Your task to perform on an android device: turn off data saver in the chrome app Image 0: 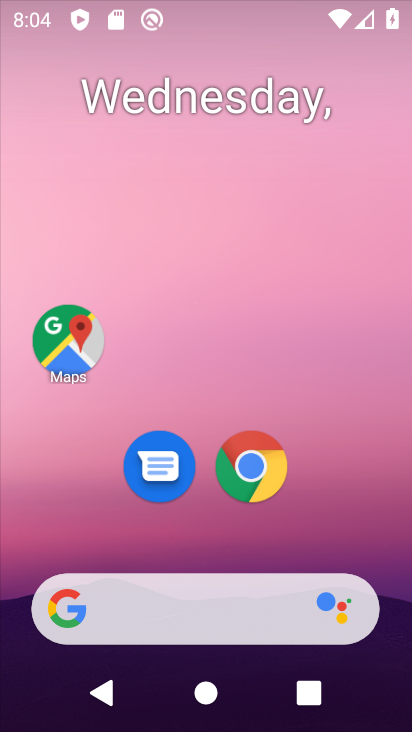
Step 0: drag from (179, 524) to (261, 3)
Your task to perform on an android device: turn off data saver in the chrome app Image 1: 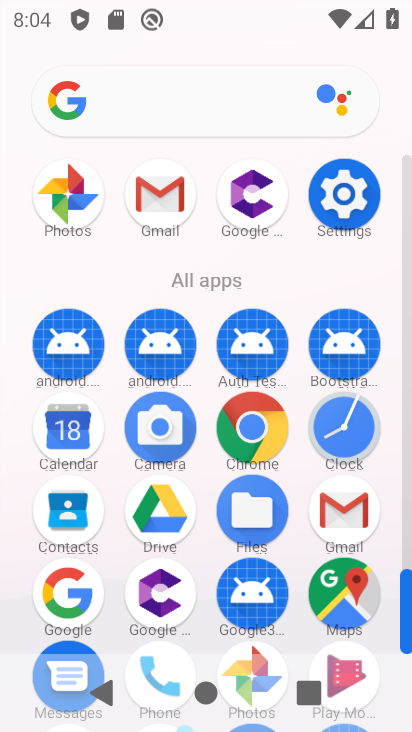
Step 1: click (266, 411)
Your task to perform on an android device: turn off data saver in the chrome app Image 2: 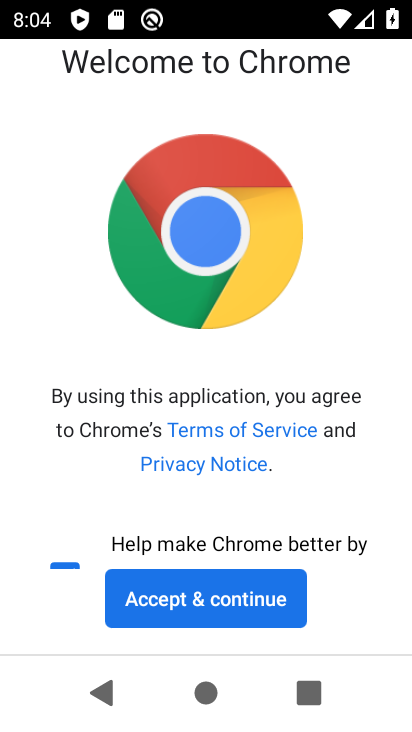
Step 2: click (193, 606)
Your task to perform on an android device: turn off data saver in the chrome app Image 3: 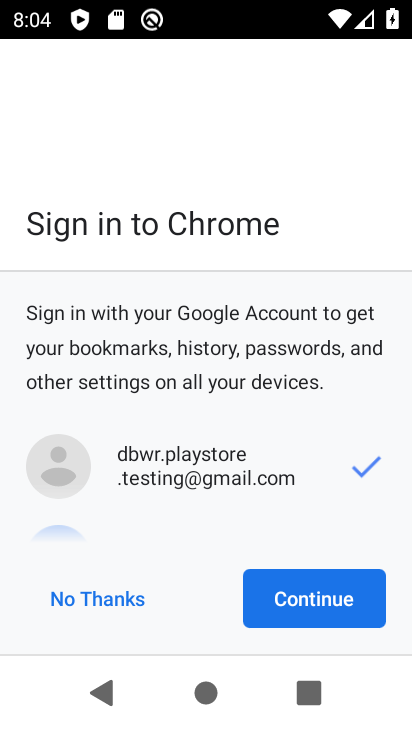
Step 3: click (325, 586)
Your task to perform on an android device: turn off data saver in the chrome app Image 4: 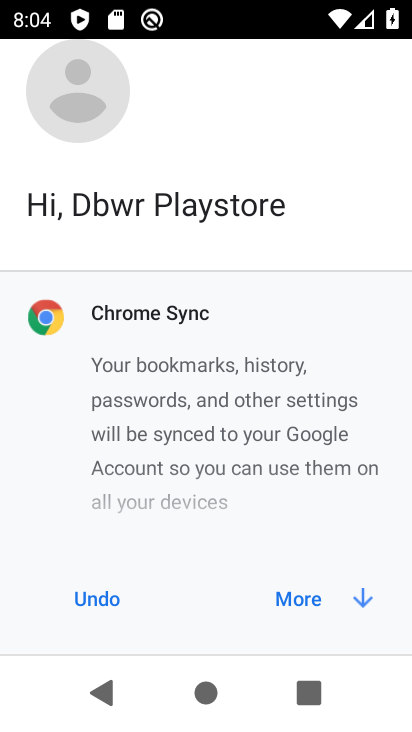
Step 4: click (302, 614)
Your task to perform on an android device: turn off data saver in the chrome app Image 5: 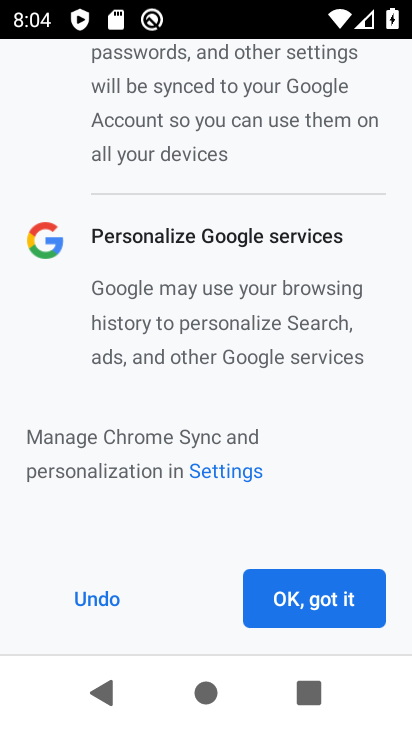
Step 5: click (365, 604)
Your task to perform on an android device: turn off data saver in the chrome app Image 6: 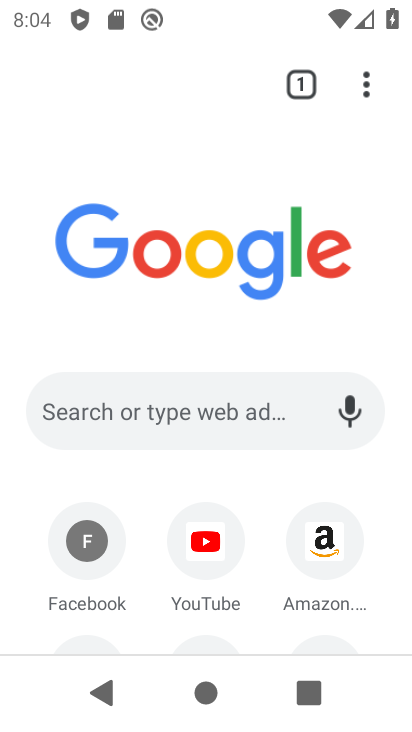
Step 6: click (368, 82)
Your task to perform on an android device: turn off data saver in the chrome app Image 7: 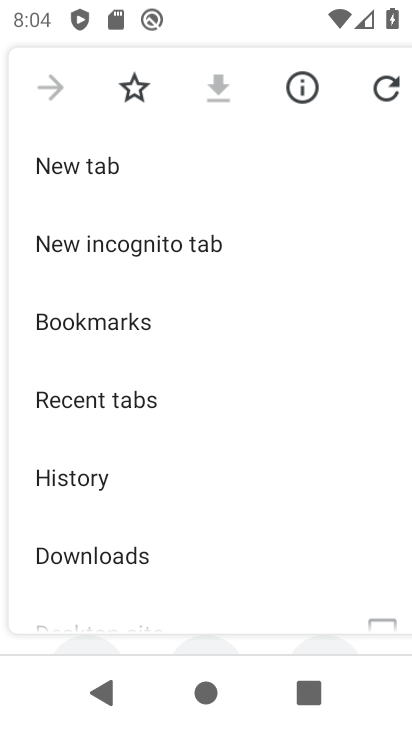
Step 7: drag from (173, 585) to (216, 275)
Your task to perform on an android device: turn off data saver in the chrome app Image 8: 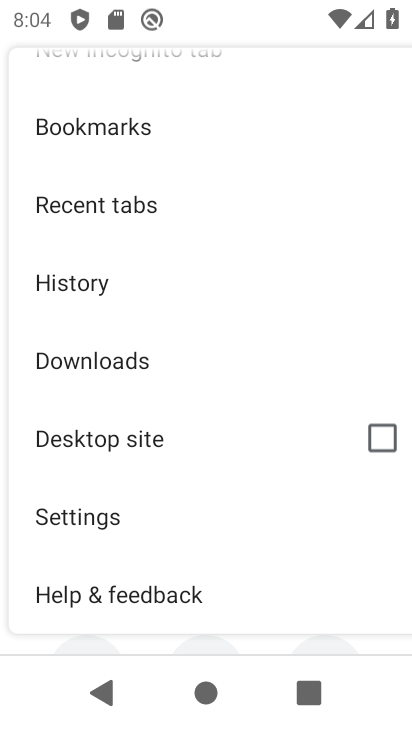
Step 8: click (105, 518)
Your task to perform on an android device: turn off data saver in the chrome app Image 9: 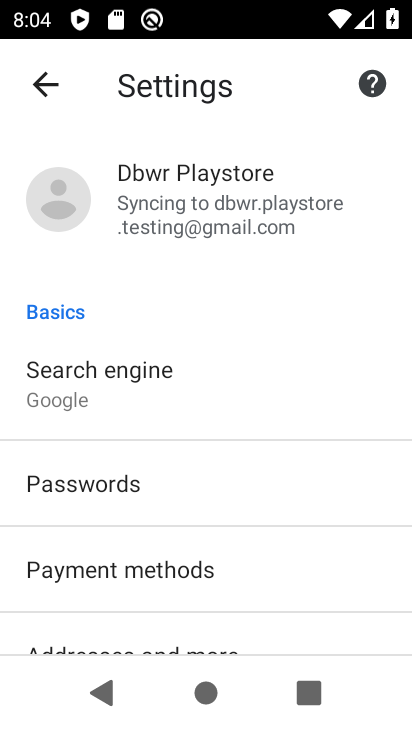
Step 9: drag from (156, 591) to (224, 266)
Your task to perform on an android device: turn off data saver in the chrome app Image 10: 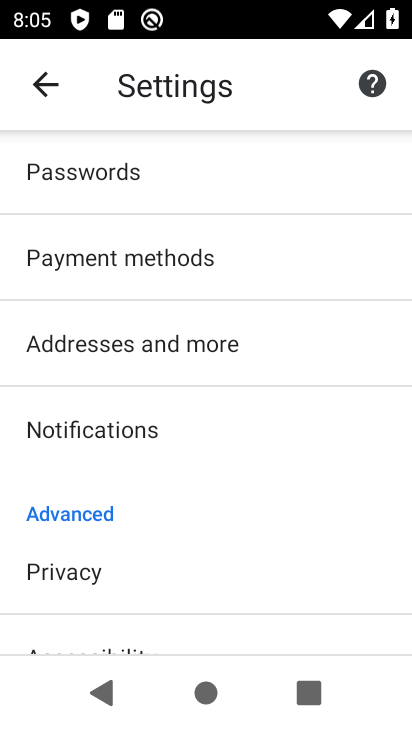
Step 10: drag from (131, 563) to (187, 339)
Your task to perform on an android device: turn off data saver in the chrome app Image 11: 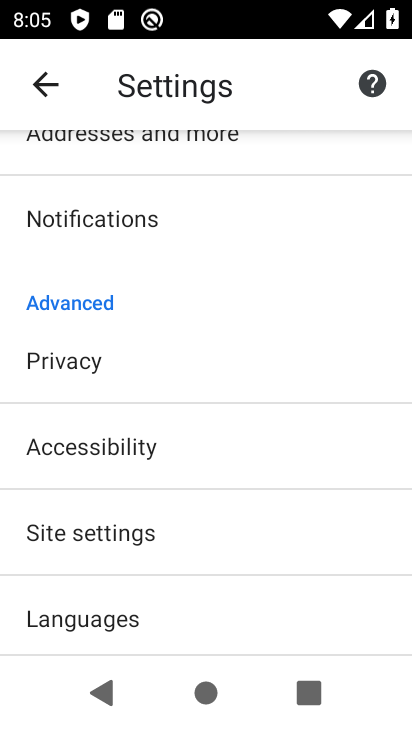
Step 11: drag from (131, 557) to (191, 248)
Your task to perform on an android device: turn off data saver in the chrome app Image 12: 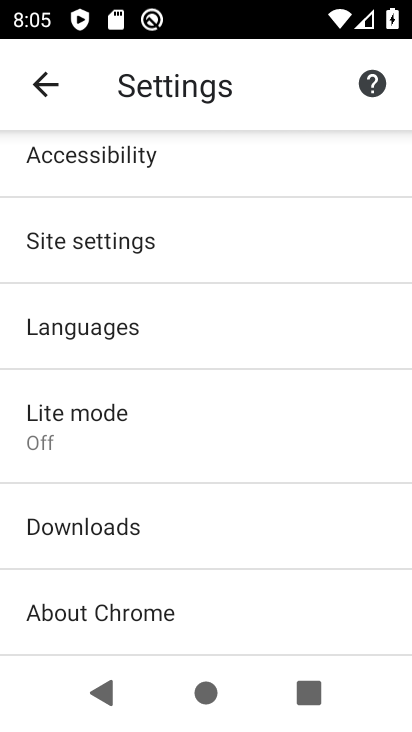
Step 12: click (103, 411)
Your task to perform on an android device: turn off data saver in the chrome app Image 13: 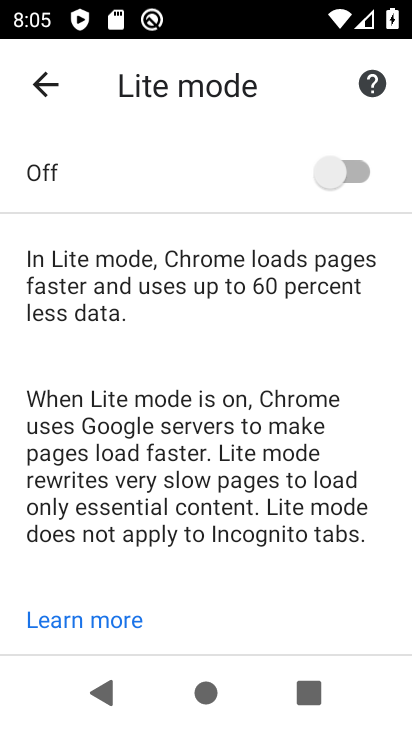
Step 13: task complete